Your task to perform on an android device: add a label to a message in the gmail app Image 0: 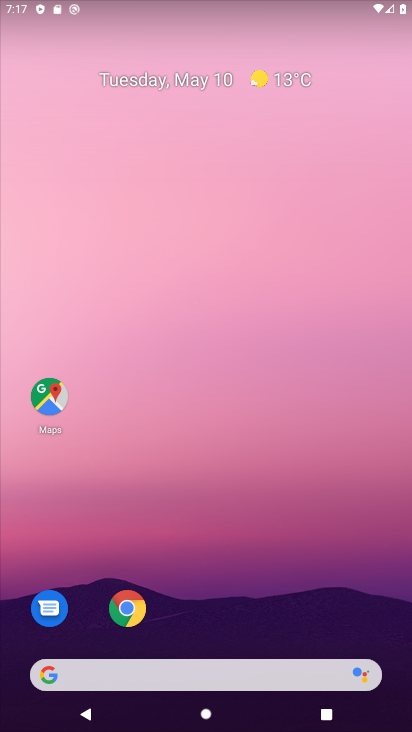
Step 0: drag from (255, 597) to (212, 140)
Your task to perform on an android device: add a label to a message in the gmail app Image 1: 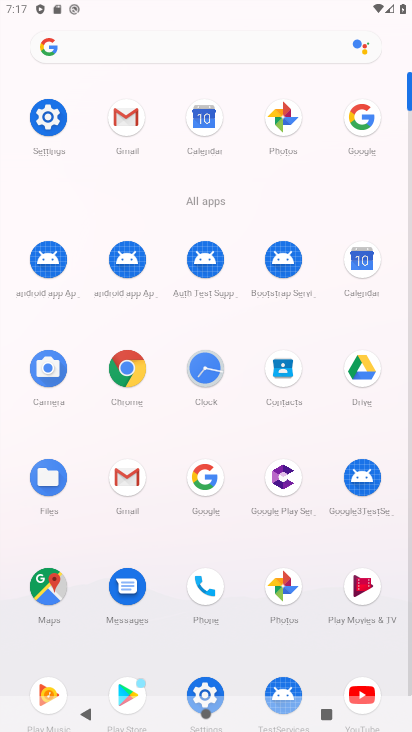
Step 1: click (132, 129)
Your task to perform on an android device: add a label to a message in the gmail app Image 2: 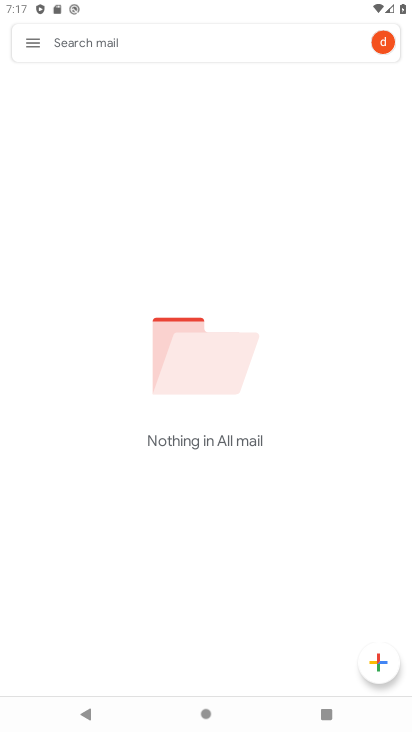
Step 2: task complete